Your task to perform on an android device: change the clock style Image 0: 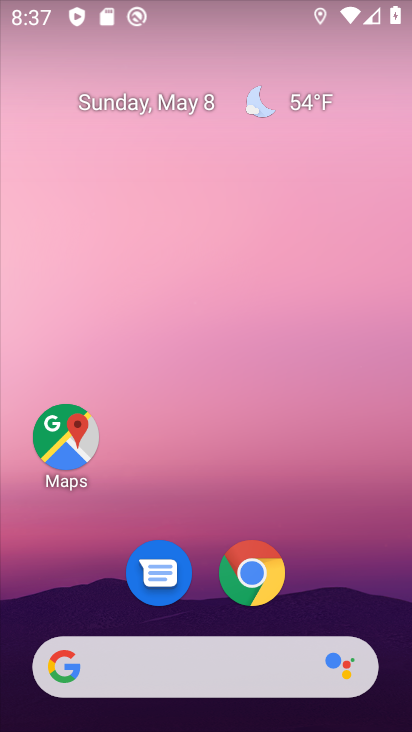
Step 0: drag from (206, 727) to (211, 67)
Your task to perform on an android device: change the clock style Image 1: 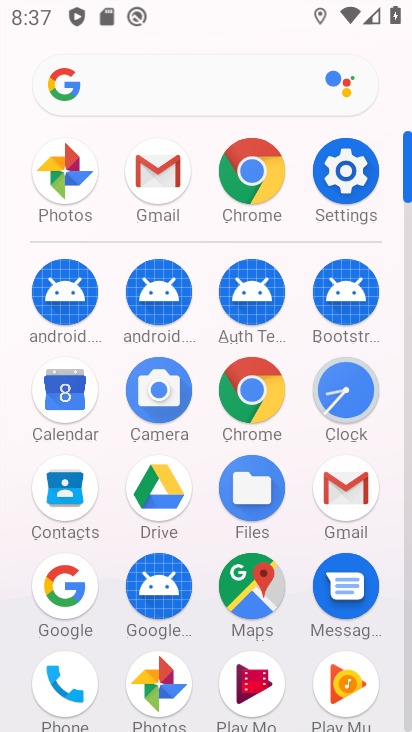
Step 1: click (343, 388)
Your task to perform on an android device: change the clock style Image 2: 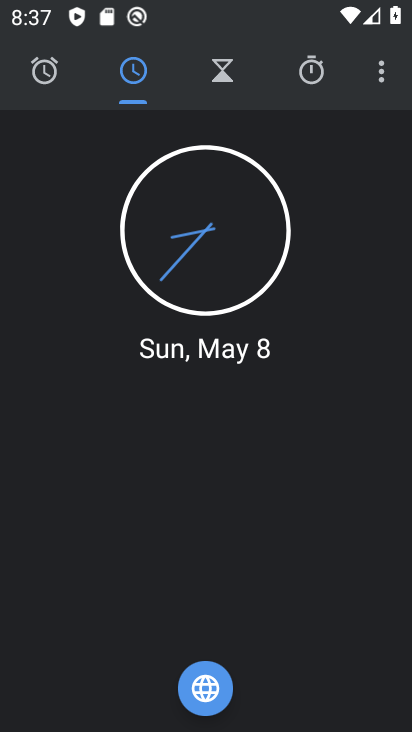
Step 2: click (384, 79)
Your task to perform on an android device: change the clock style Image 3: 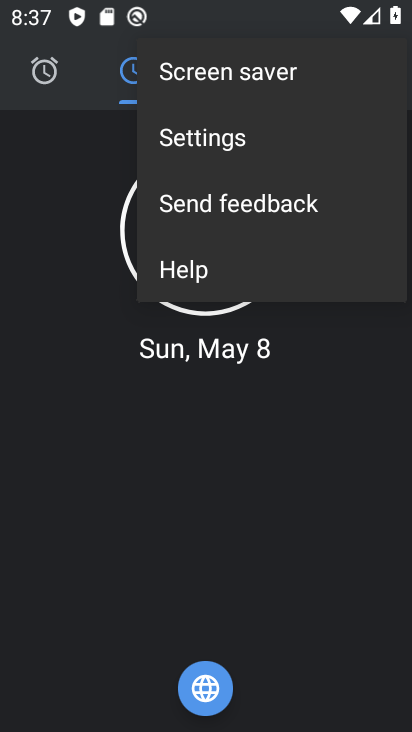
Step 3: click (187, 139)
Your task to perform on an android device: change the clock style Image 4: 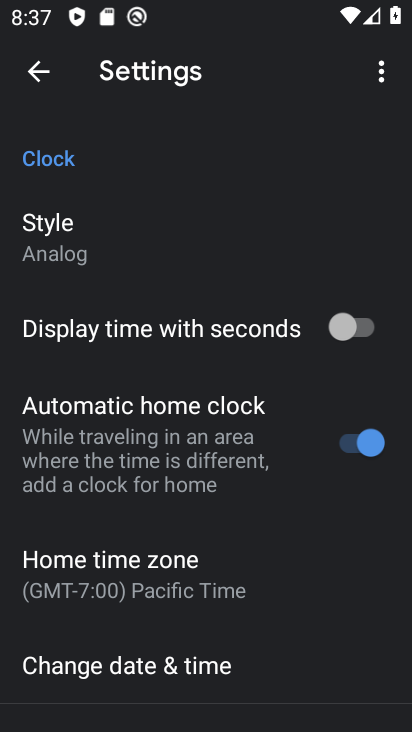
Step 4: click (48, 238)
Your task to perform on an android device: change the clock style Image 5: 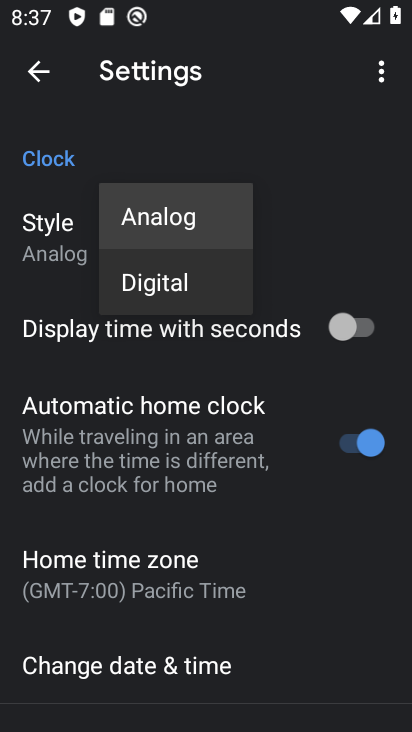
Step 5: click (162, 274)
Your task to perform on an android device: change the clock style Image 6: 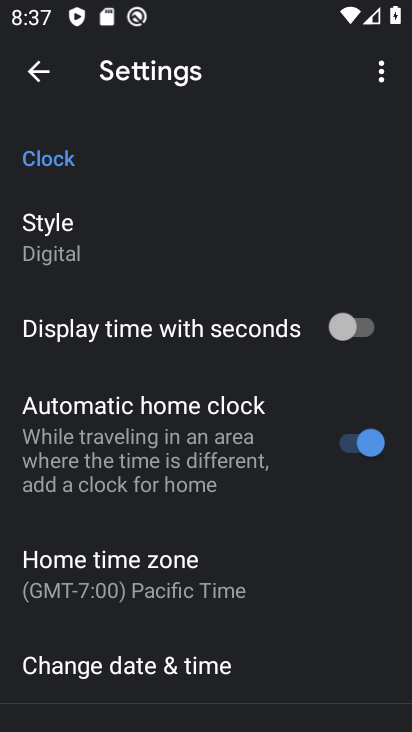
Step 6: task complete